Your task to perform on an android device: What's the weather going to be this weekend? Image 0: 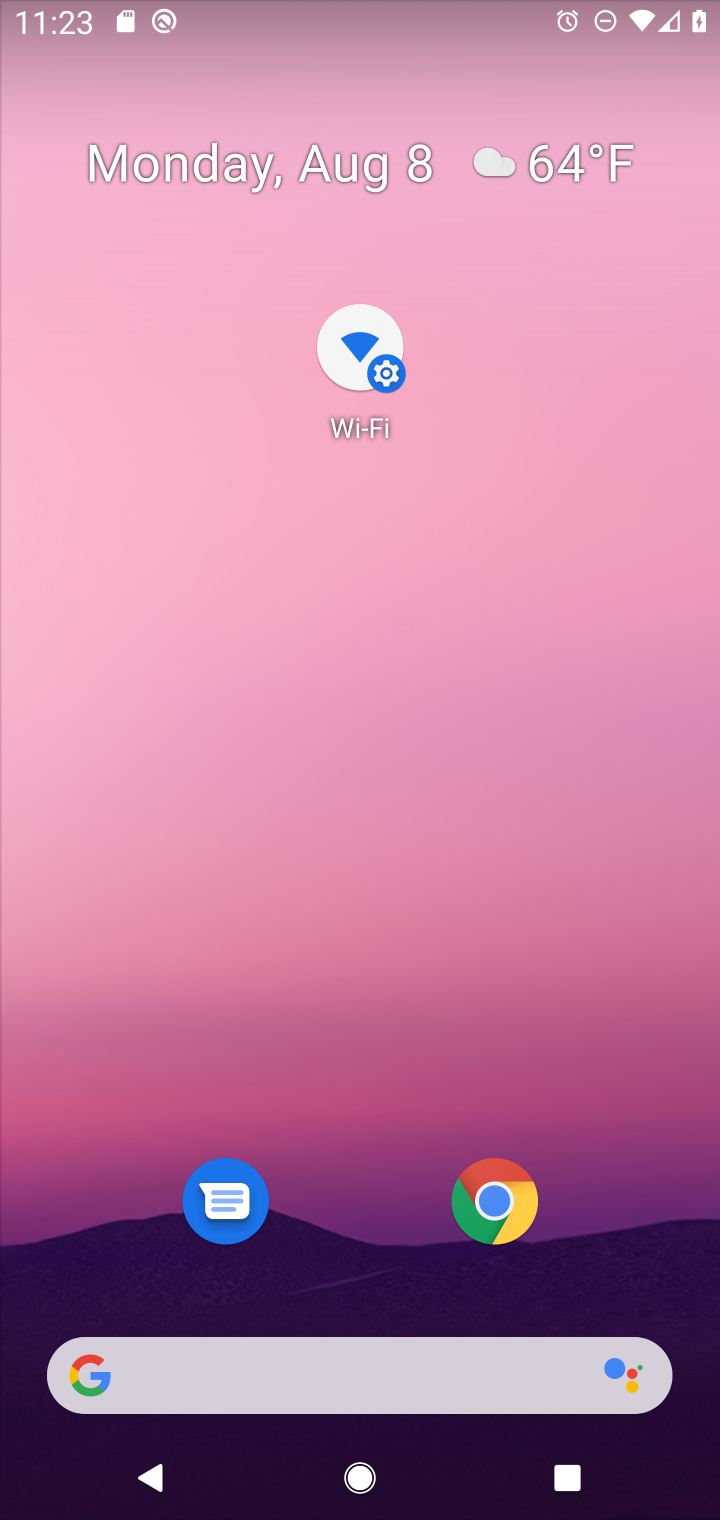
Step 0: click (335, 1357)
Your task to perform on an android device: What's the weather going to be this weekend? Image 1: 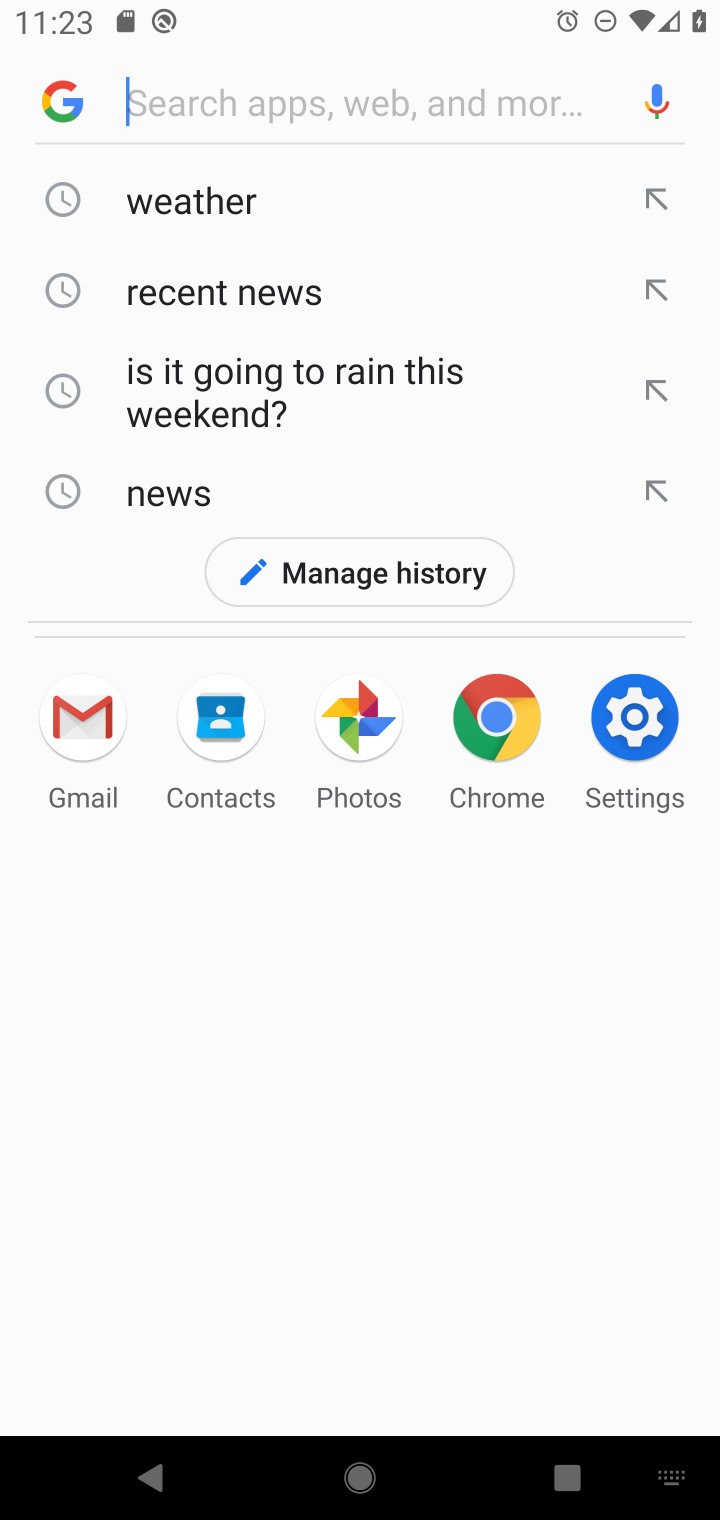
Step 1: click (203, 197)
Your task to perform on an android device: What's the weather going to be this weekend? Image 2: 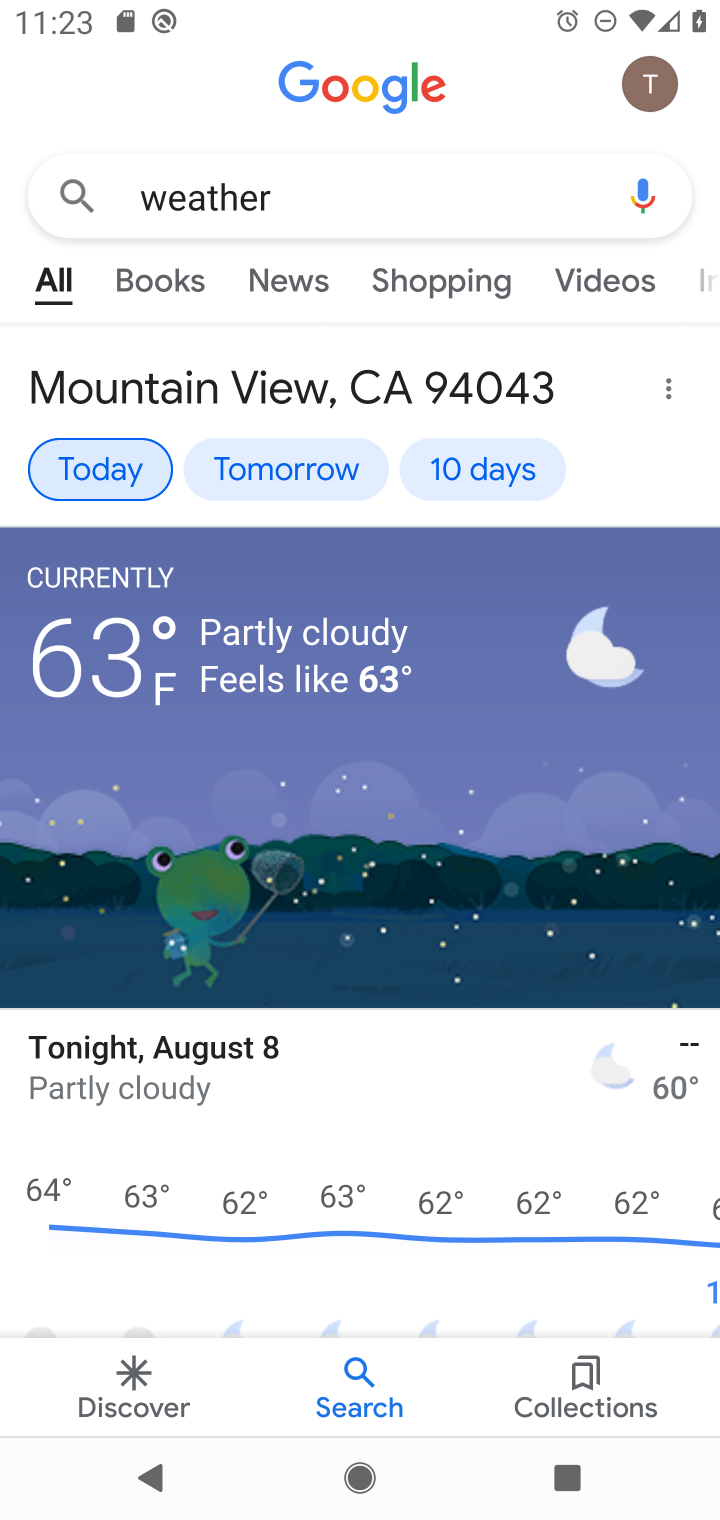
Step 2: click (497, 468)
Your task to perform on an android device: What's the weather going to be this weekend? Image 3: 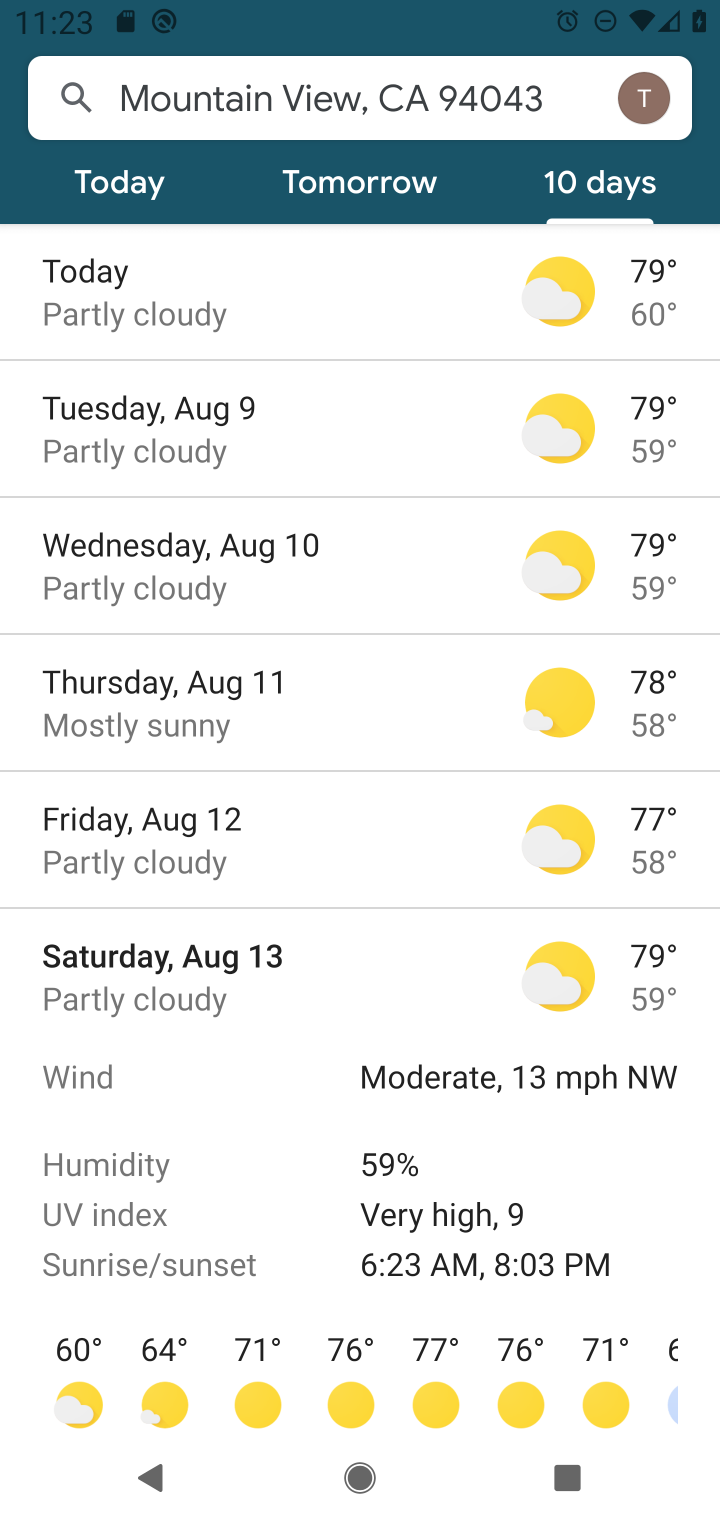
Step 3: task complete